Your task to perform on an android device: Search for pizza restaurants on Maps Image 0: 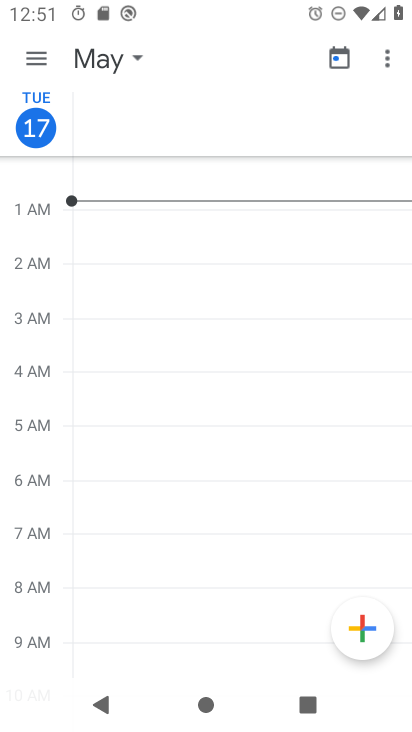
Step 0: press home button
Your task to perform on an android device: Search for pizza restaurants on Maps Image 1: 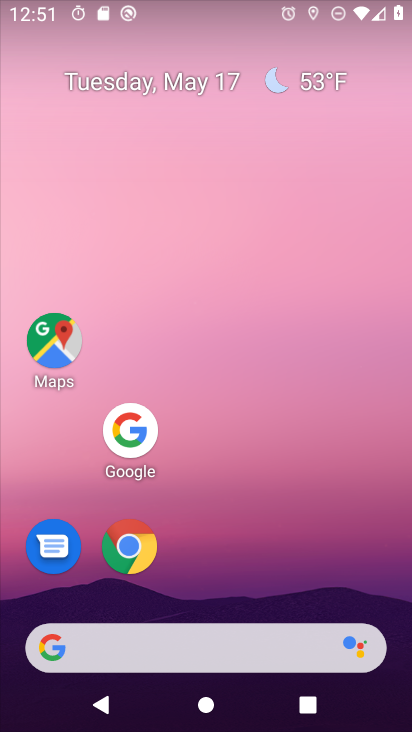
Step 1: click (51, 341)
Your task to perform on an android device: Search for pizza restaurants on Maps Image 2: 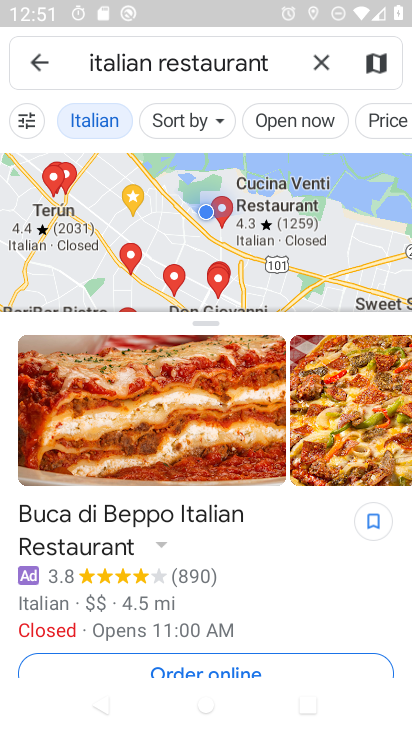
Step 2: click (311, 56)
Your task to perform on an android device: Search for pizza restaurants on Maps Image 3: 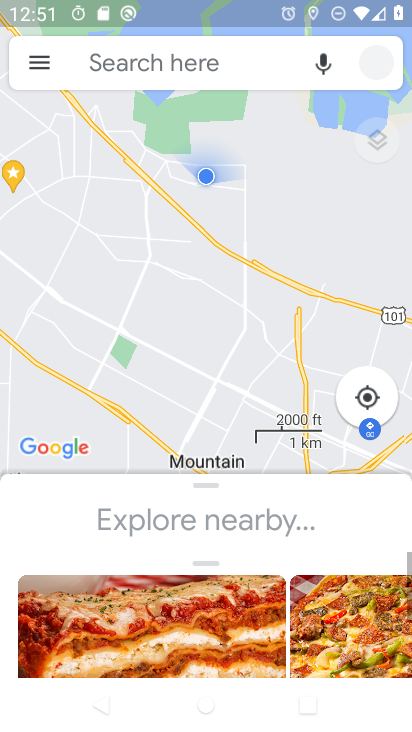
Step 3: click (191, 64)
Your task to perform on an android device: Search for pizza restaurants on Maps Image 4: 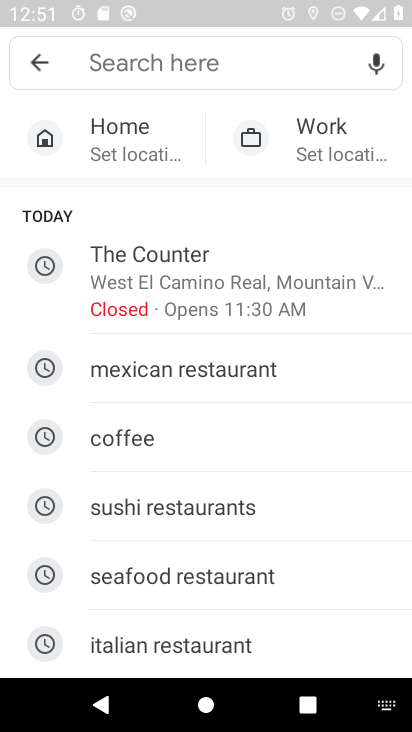
Step 4: type "pizza restaurents"
Your task to perform on an android device: Search for pizza restaurants on Maps Image 5: 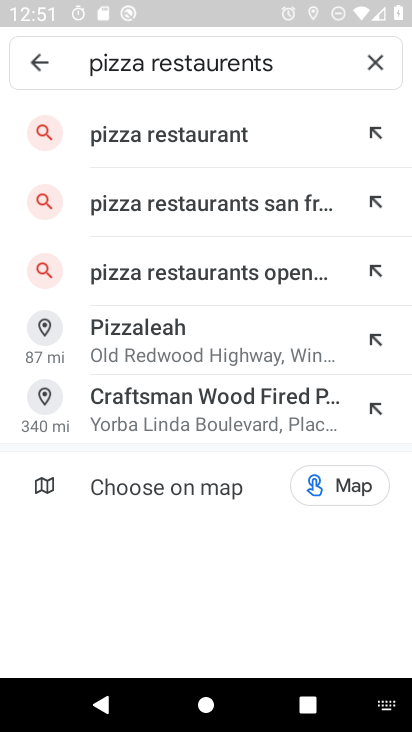
Step 5: click (205, 125)
Your task to perform on an android device: Search for pizza restaurants on Maps Image 6: 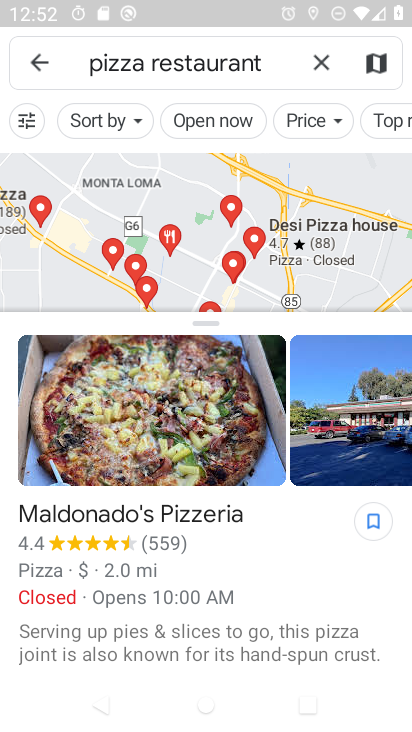
Step 6: task complete